Your task to perform on an android device: turn on location history Image 0: 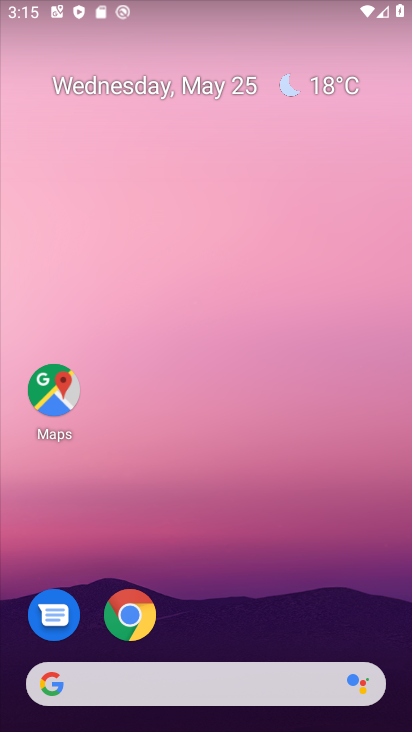
Step 0: click (199, 320)
Your task to perform on an android device: turn on location history Image 1: 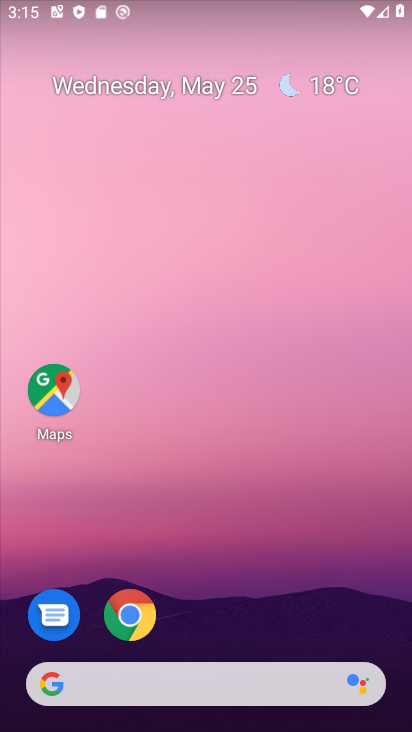
Step 1: drag from (276, 527) to (299, 108)
Your task to perform on an android device: turn on location history Image 2: 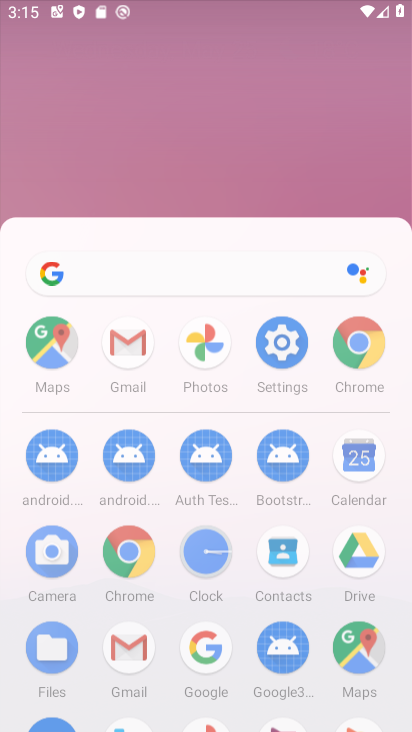
Step 2: drag from (283, 490) to (276, 90)
Your task to perform on an android device: turn on location history Image 3: 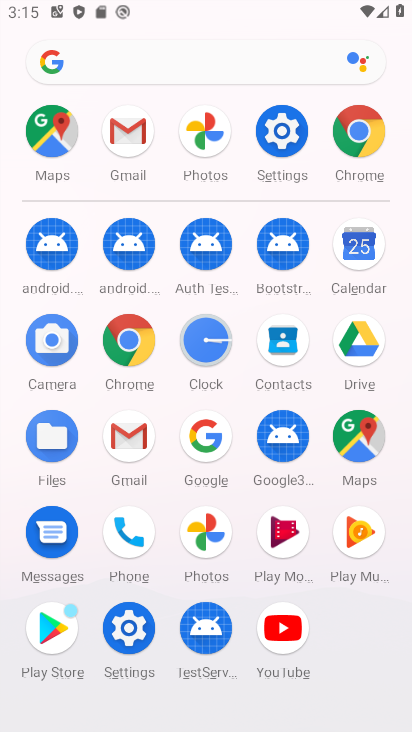
Step 3: click (273, 128)
Your task to perform on an android device: turn on location history Image 4: 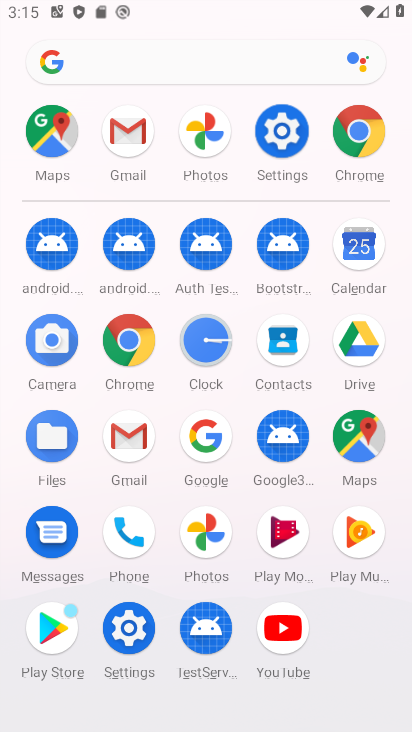
Step 4: click (273, 128)
Your task to perform on an android device: turn on location history Image 5: 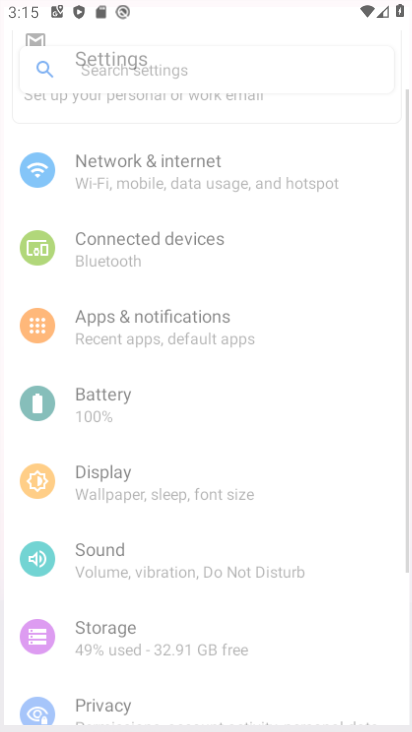
Step 5: click (275, 128)
Your task to perform on an android device: turn on location history Image 6: 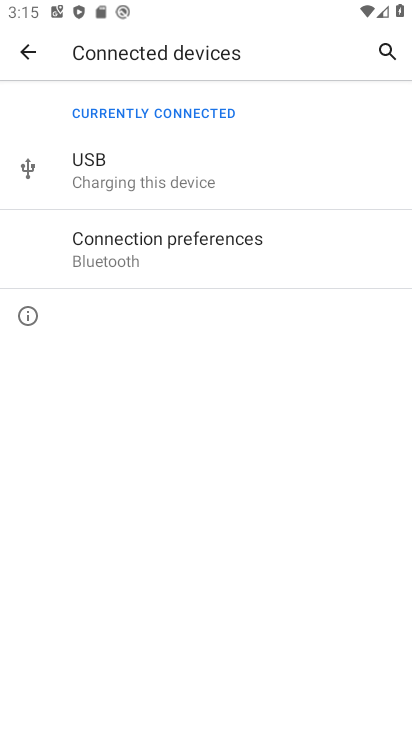
Step 6: click (19, 43)
Your task to perform on an android device: turn on location history Image 7: 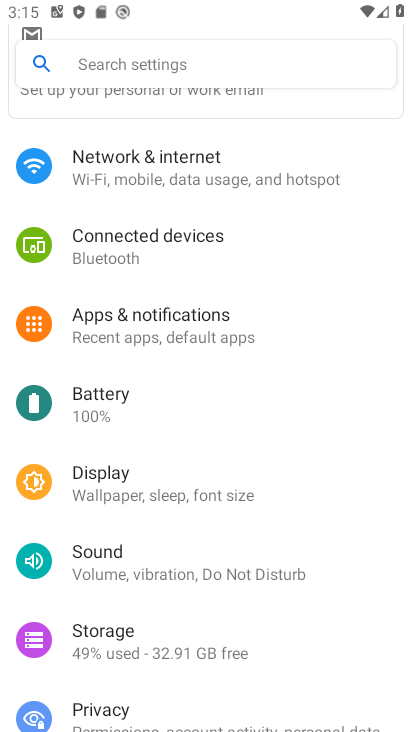
Step 7: drag from (152, 453) to (177, 312)
Your task to perform on an android device: turn on location history Image 8: 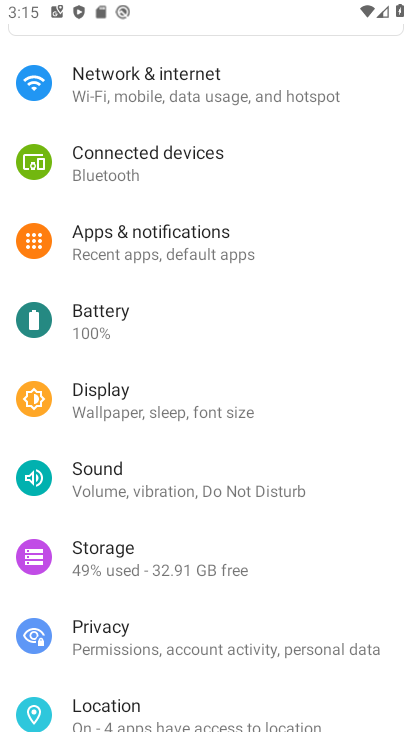
Step 8: drag from (237, 493) to (210, 134)
Your task to perform on an android device: turn on location history Image 9: 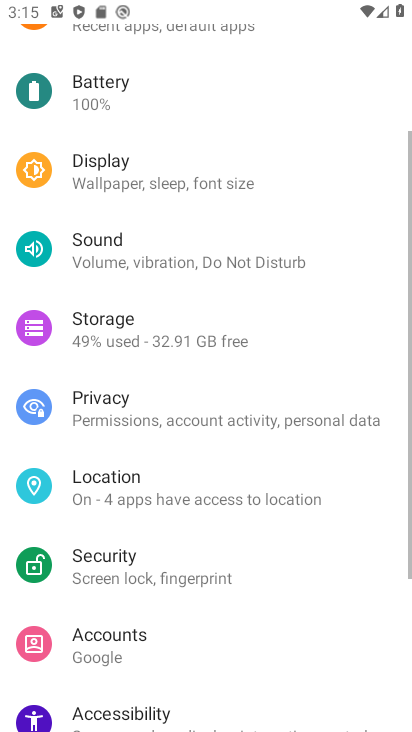
Step 9: drag from (208, 499) to (127, 247)
Your task to perform on an android device: turn on location history Image 10: 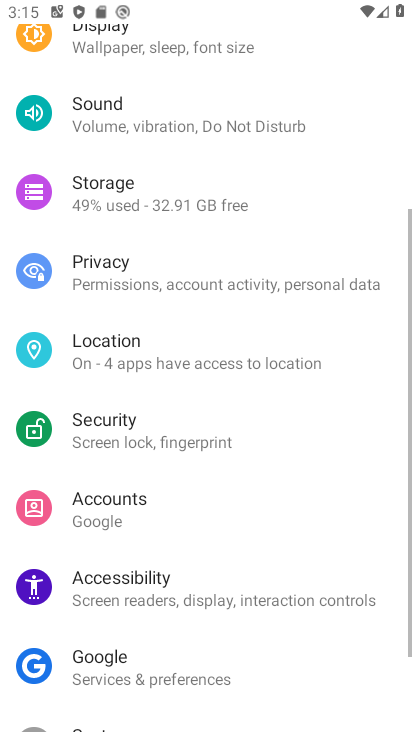
Step 10: drag from (152, 529) to (147, 97)
Your task to perform on an android device: turn on location history Image 11: 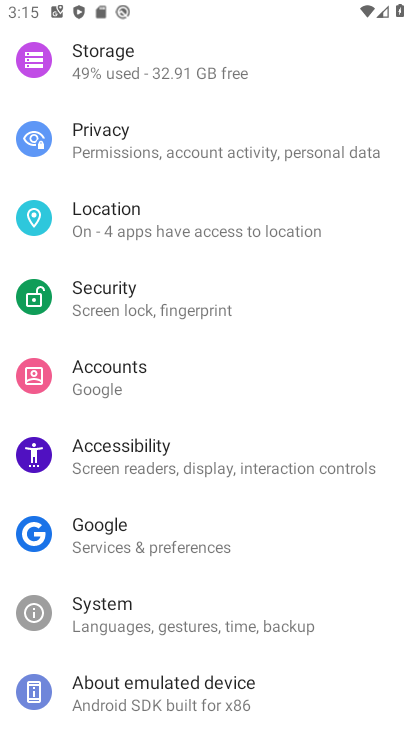
Step 11: click (134, 223)
Your task to perform on an android device: turn on location history Image 12: 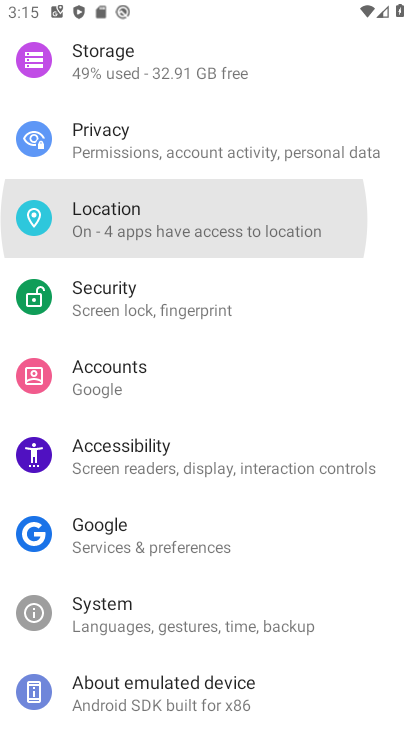
Step 12: click (131, 220)
Your task to perform on an android device: turn on location history Image 13: 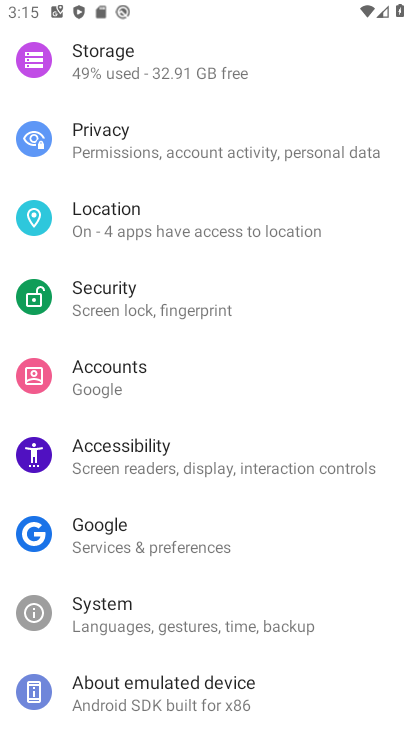
Step 13: click (102, 212)
Your task to perform on an android device: turn on location history Image 14: 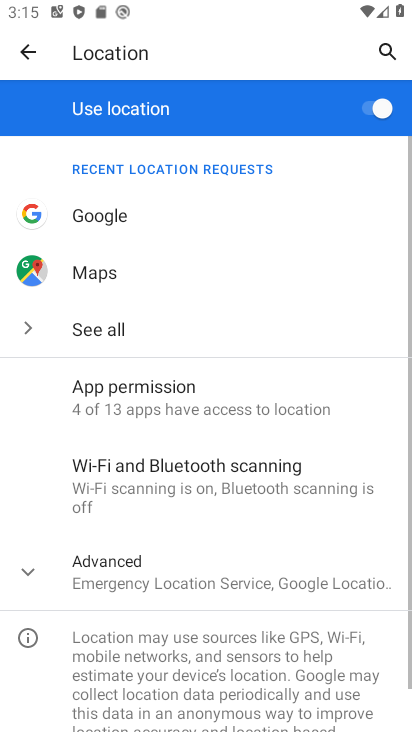
Step 14: click (140, 573)
Your task to perform on an android device: turn on location history Image 15: 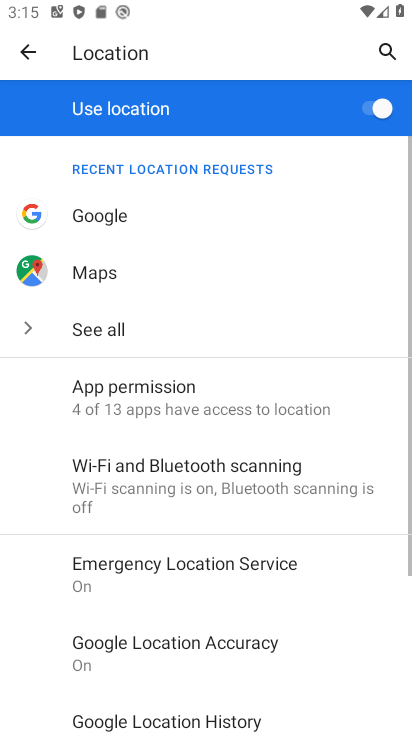
Step 15: drag from (242, 448) to (300, 135)
Your task to perform on an android device: turn on location history Image 16: 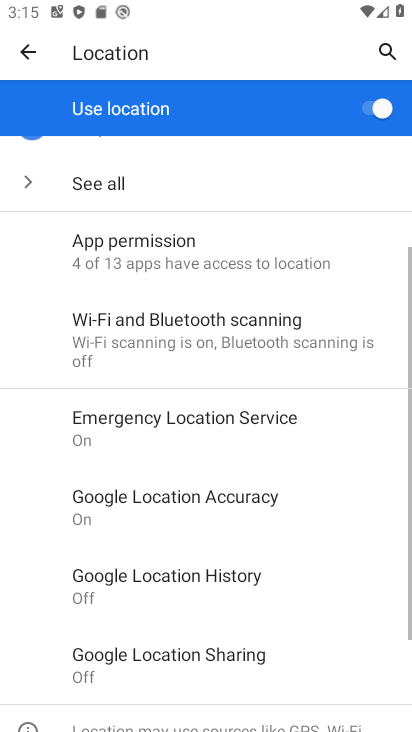
Step 16: drag from (320, 511) to (312, 143)
Your task to perform on an android device: turn on location history Image 17: 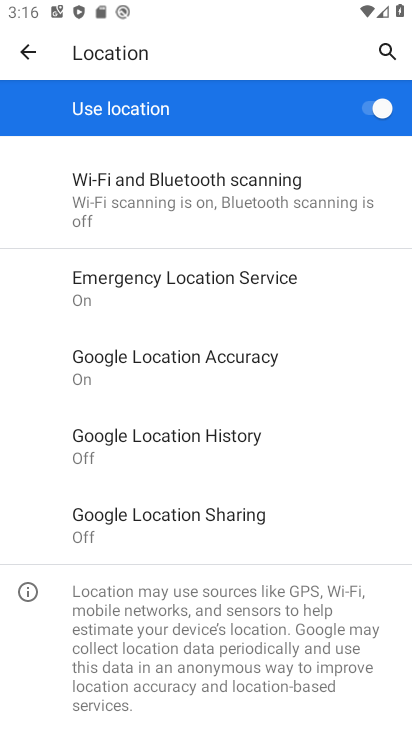
Step 17: click (134, 425)
Your task to perform on an android device: turn on location history Image 18: 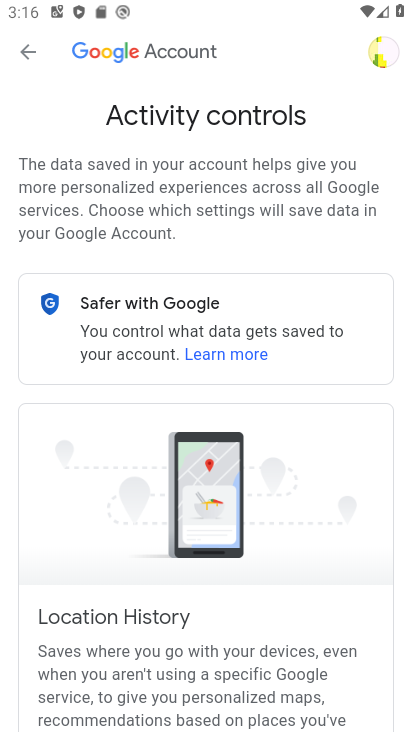
Step 18: task complete